Your task to perform on an android device: delete the emails in spam in the gmail app Image 0: 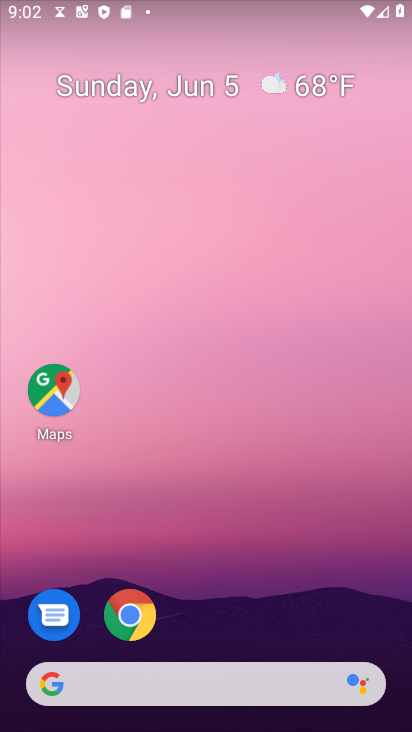
Step 0: drag from (209, 672) to (234, 21)
Your task to perform on an android device: delete the emails in spam in the gmail app Image 1: 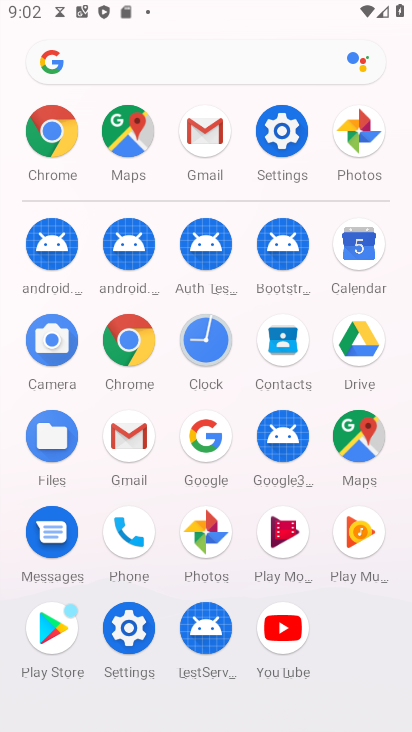
Step 1: click (130, 447)
Your task to perform on an android device: delete the emails in spam in the gmail app Image 2: 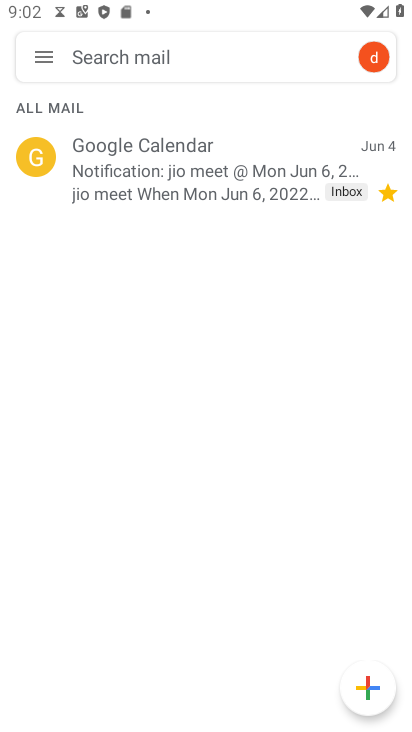
Step 2: click (39, 58)
Your task to perform on an android device: delete the emails in spam in the gmail app Image 3: 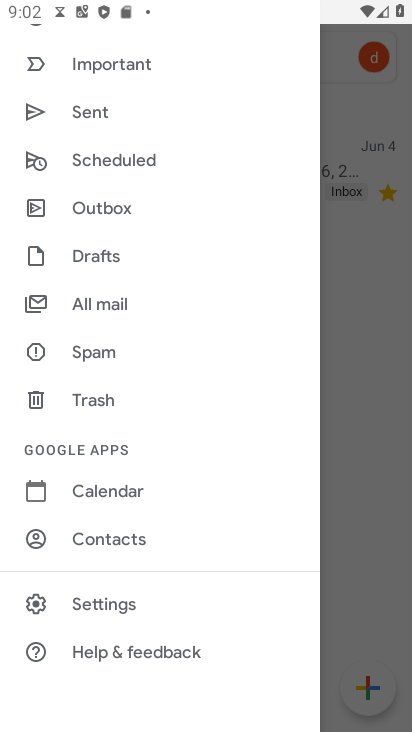
Step 3: click (116, 357)
Your task to perform on an android device: delete the emails in spam in the gmail app Image 4: 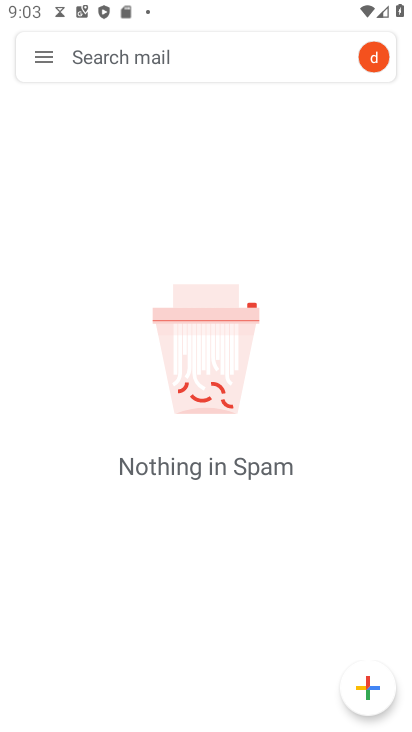
Step 4: task complete